Your task to perform on an android device: change alarm snooze length Image 0: 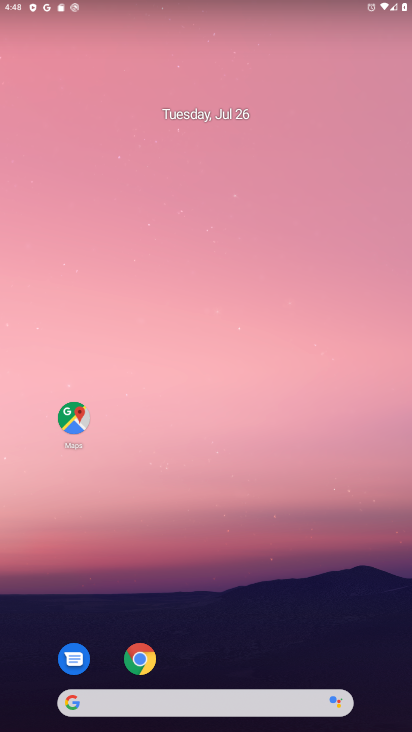
Step 0: drag from (232, 657) to (321, 60)
Your task to perform on an android device: change alarm snooze length Image 1: 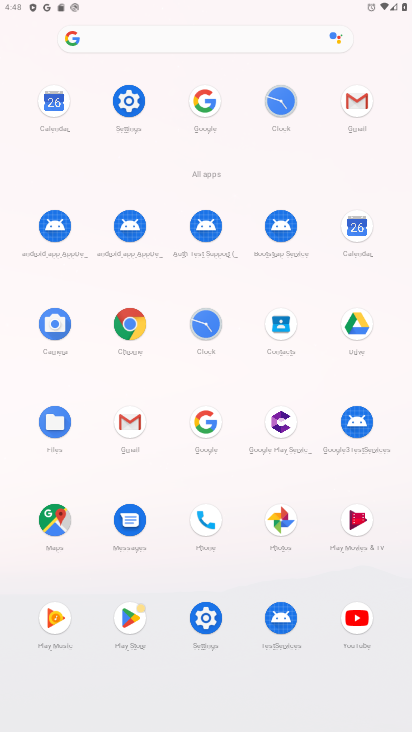
Step 1: click (207, 318)
Your task to perform on an android device: change alarm snooze length Image 2: 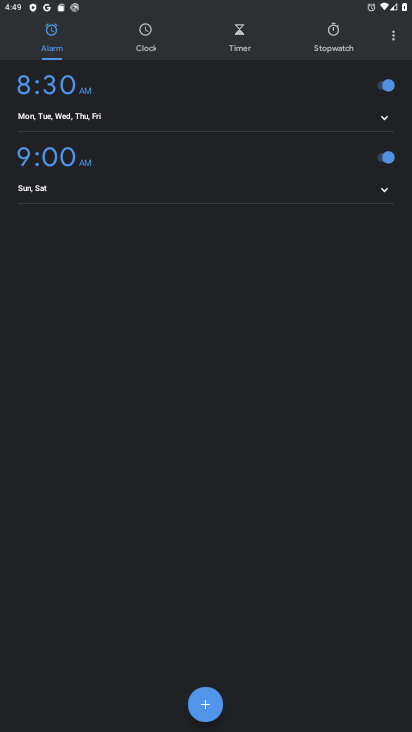
Step 2: click (390, 36)
Your task to perform on an android device: change alarm snooze length Image 3: 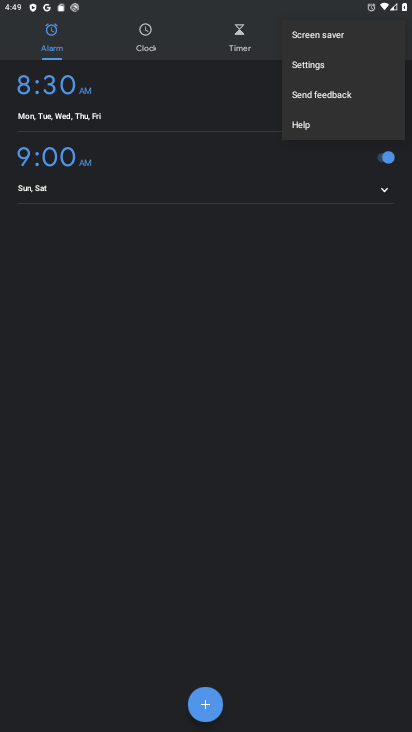
Step 3: click (350, 64)
Your task to perform on an android device: change alarm snooze length Image 4: 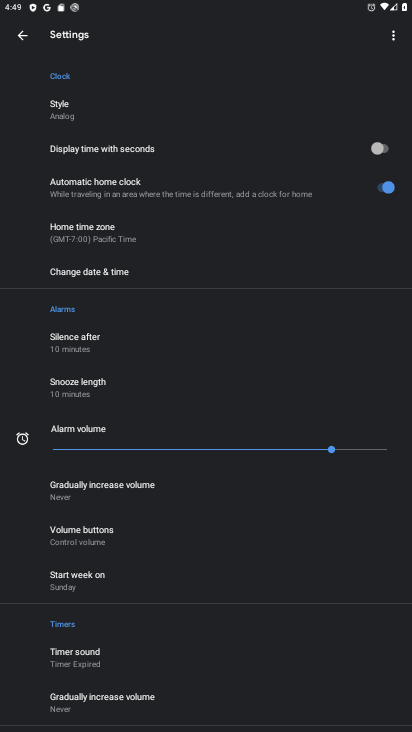
Step 4: click (132, 382)
Your task to perform on an android device: change alarm snooze length Image 5: 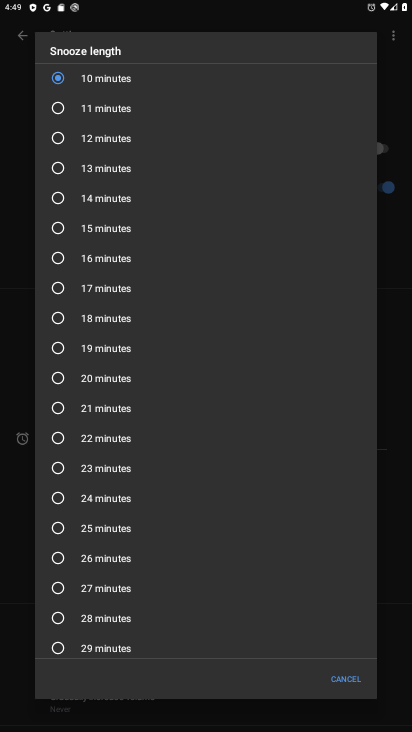
Step 5: click (61, 206)
Your task to perform on an android device: change alarm snooze length Image 6: 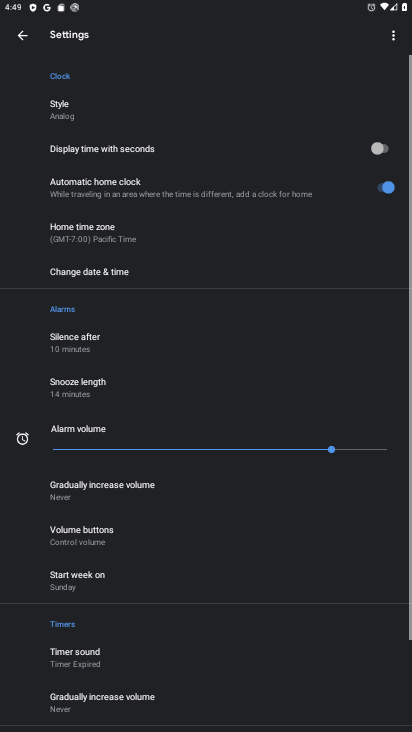
Step 6: task complete